Your task to perform on an android device: search for starred emails in the gmail app Image 0: 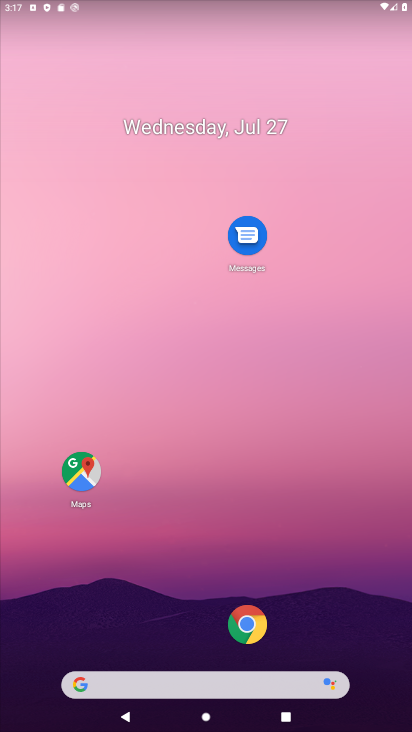
Step 0: drag from (158, 632) to (145, 239)
Your task to perform on an android device: search for starred emails in the gmail app Image 1: 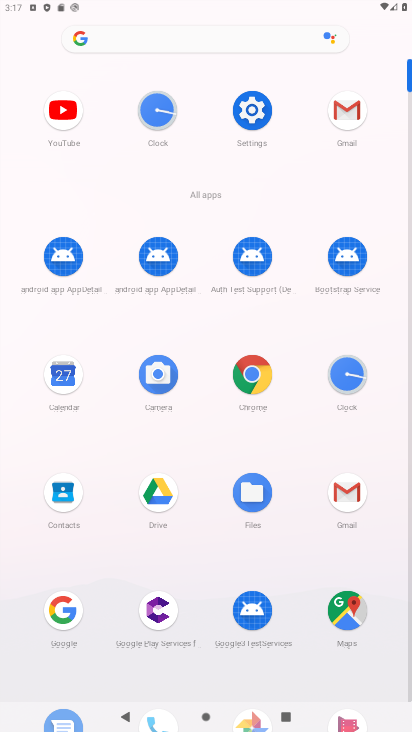
Step 1: click (340, 103)
Your task to perform on an android device: search for starred emails in the gmail app Image 2: 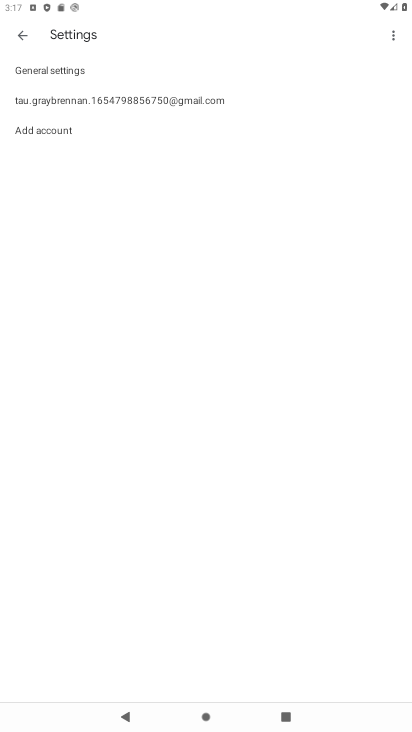
Step 2: click (27, 37)
Your task to perform on an android device: search for starred emails in the gmail app Image 3: 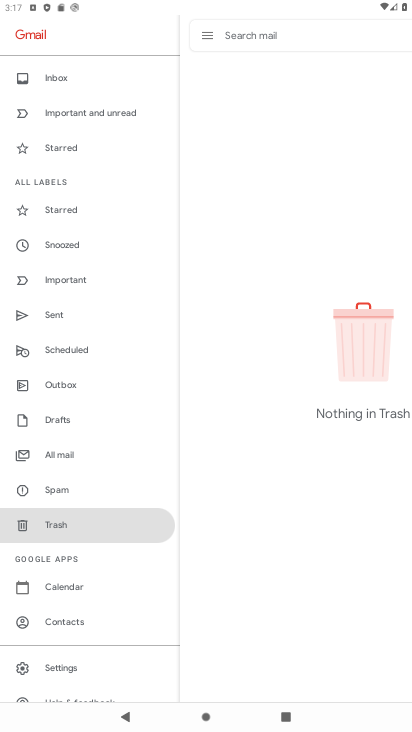
Step 3: click (73, 213)
Your task to perform on an android device: search for starred emails in the gmail app Image 4: 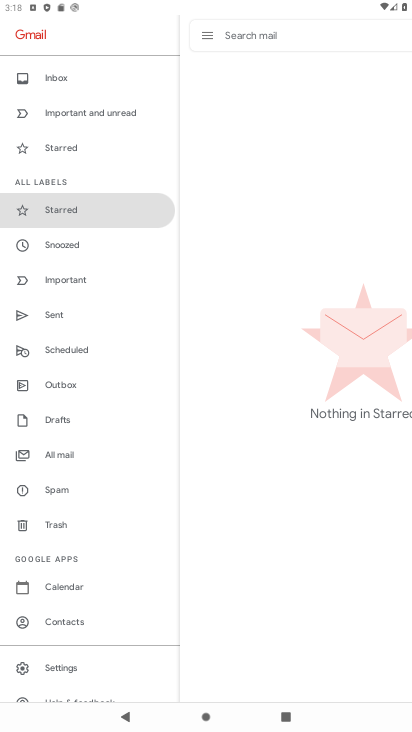
Step 4: task complete